Your task to perform on an android device: toggle improve location accuracy Image 0: 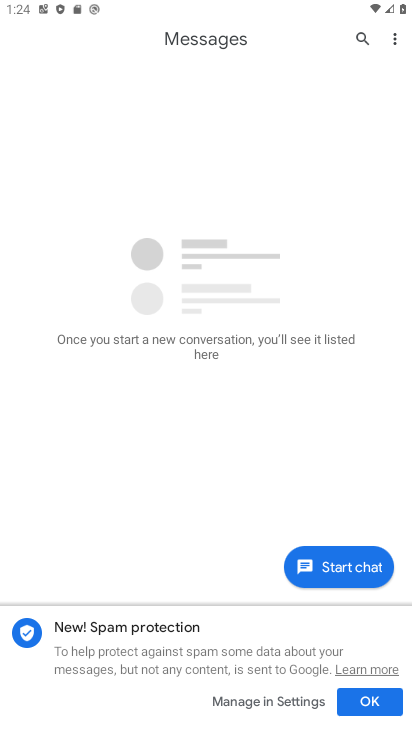
Step 0: press home button
Your task to perform on an android device: toggle improve location accuracy Image 1: 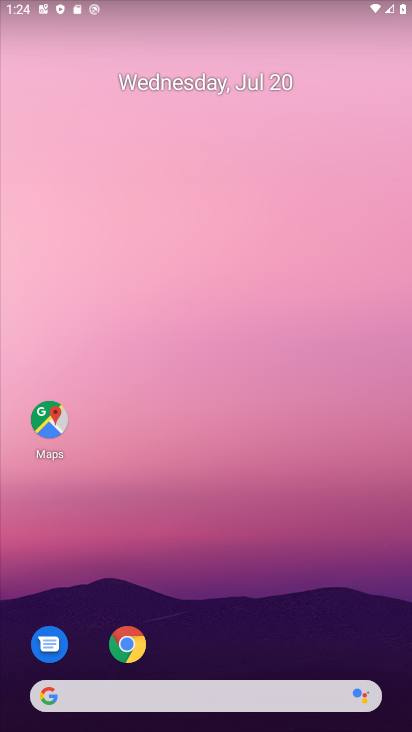
Step 1: drag from (241, 657) to (191, 5)
Your task to perform on an android device: toggle improve location accuracy Image 2: 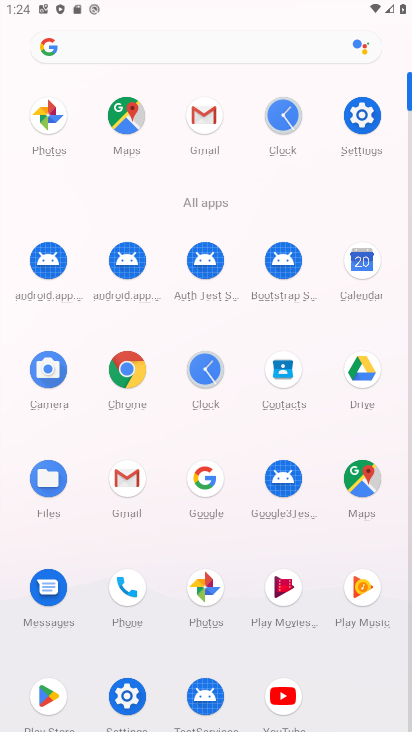
Step 2: click (357, 127)
Your task to perform on an android device: toggle improve location accuracy Image 3: 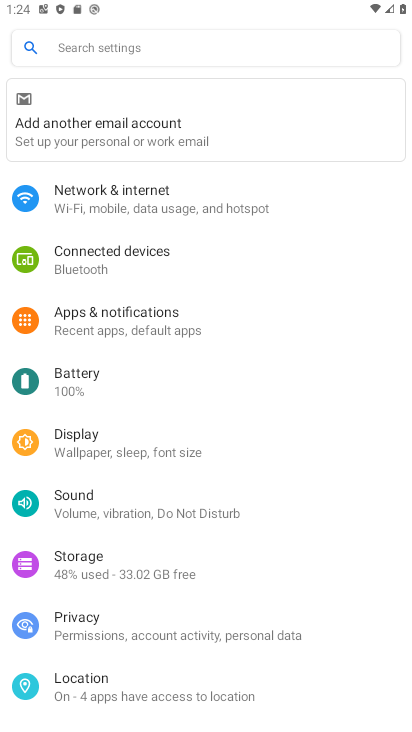
Step 3: click (91, 676)
Your task to perform on an android device: toggle improve location accuracy Image 4: 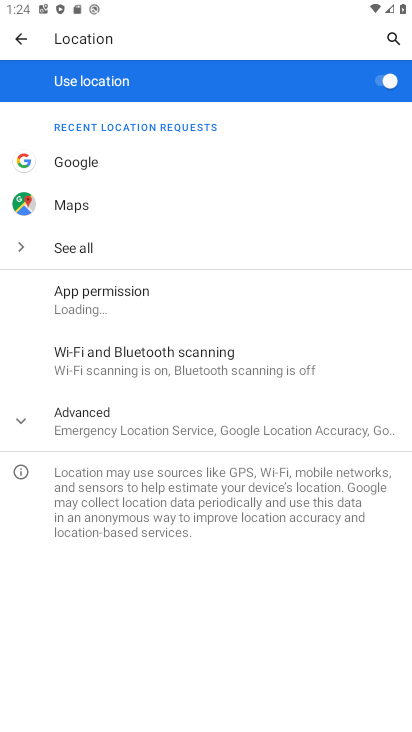
Step 4: click (63, 417)
Your task to perform on an android device: toggle improve location accuracy Image 5: 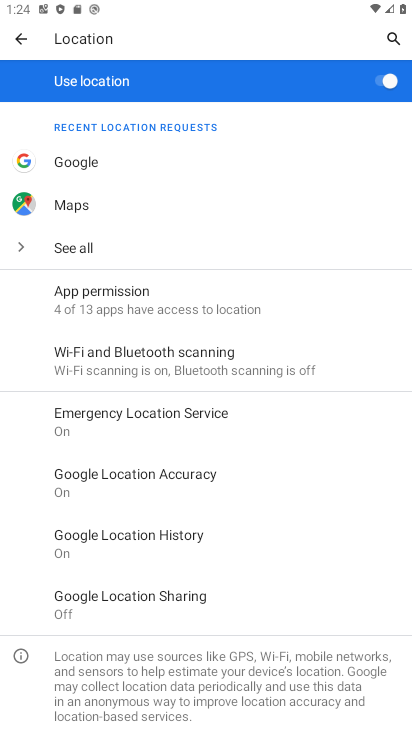
Step 5: click (144, 473)
Your task to perform on an android device: toggle improve location accuracy Image 6: 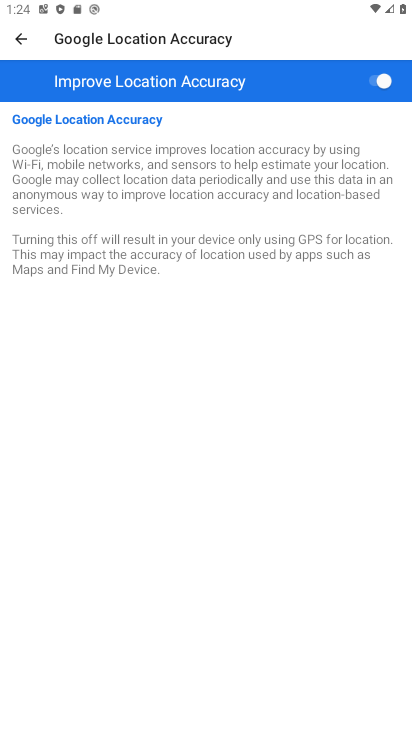
Step 6: click (379, 83)
Your task to perform on an android device: toggle improve location accuracy Image 7: 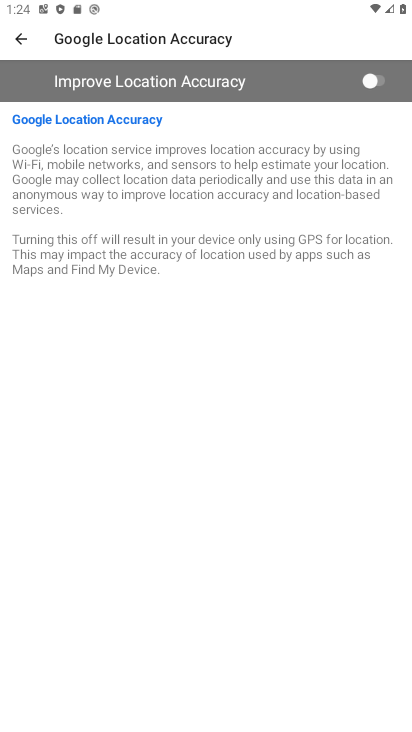
Step 7: task complete